Your task to perform on an android device: Open network settings Image 0: 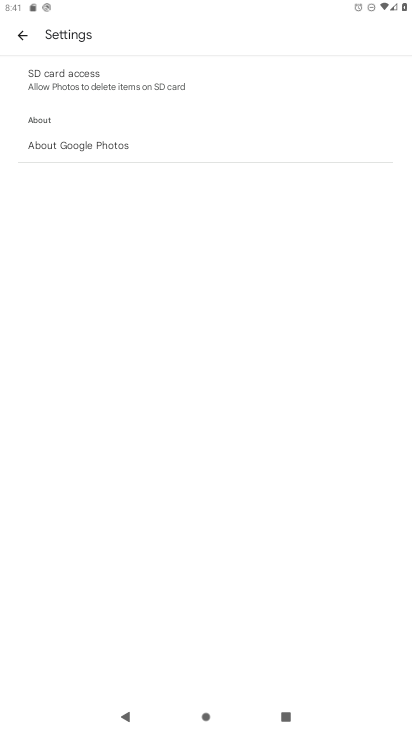
Step 0: press home button
Your task to perform on an android device: Open network settings Image 1: 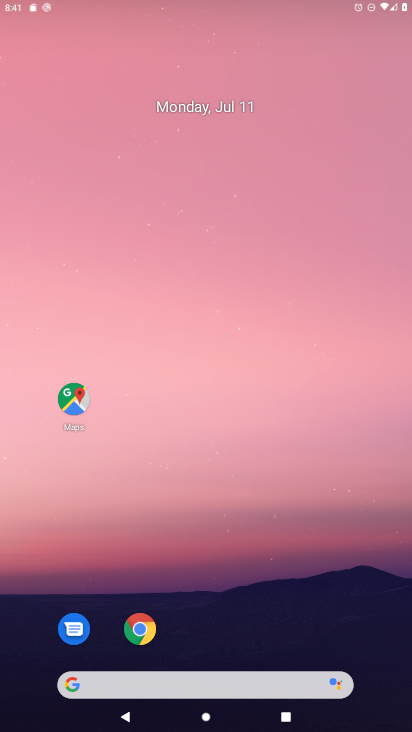
Step 1: drag from (198, 625) to (178, 92)
Your task to perform on an android device: Open network settings Image 2: 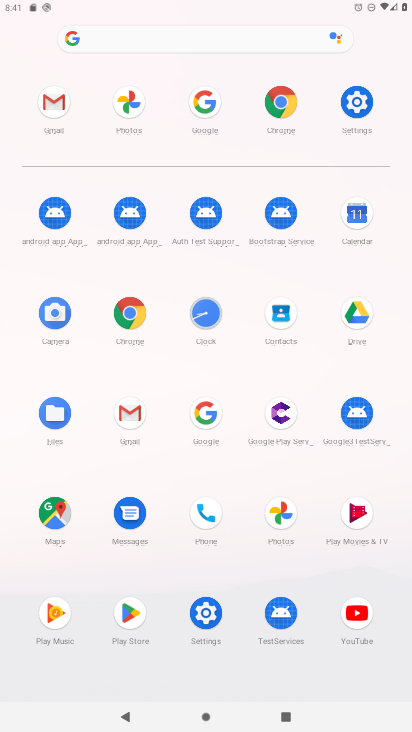
Step 2: click (359, 100)
Your task to perform on an android device: Open network settings Image 3: 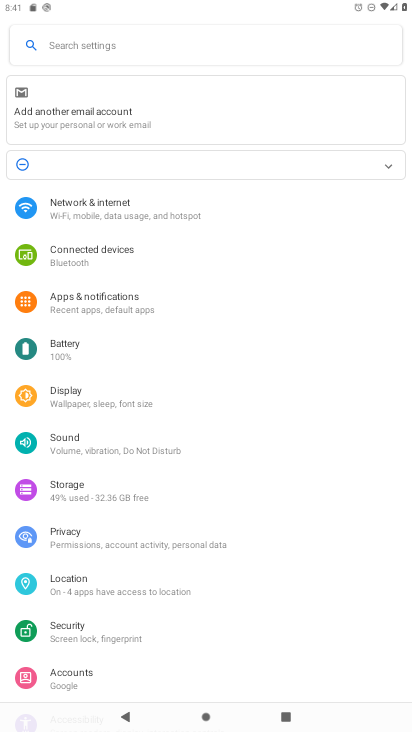
Step 3: click (115, 212)
Your task to perform on an android device: Open network settings Image 4: 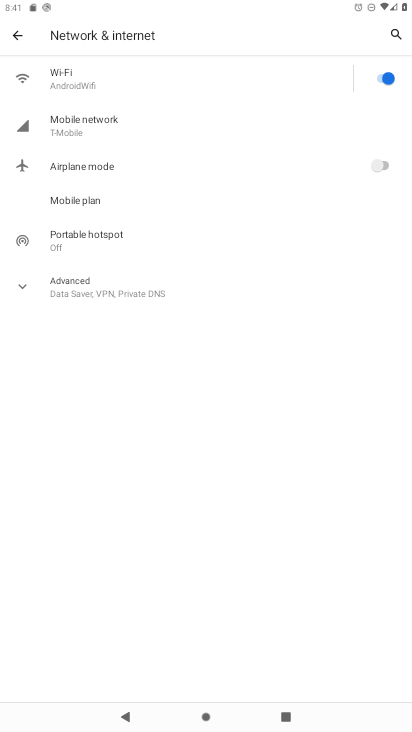
Step 4: click (140, 127)
Your task to perform on an android device: Open network settings Image 5: 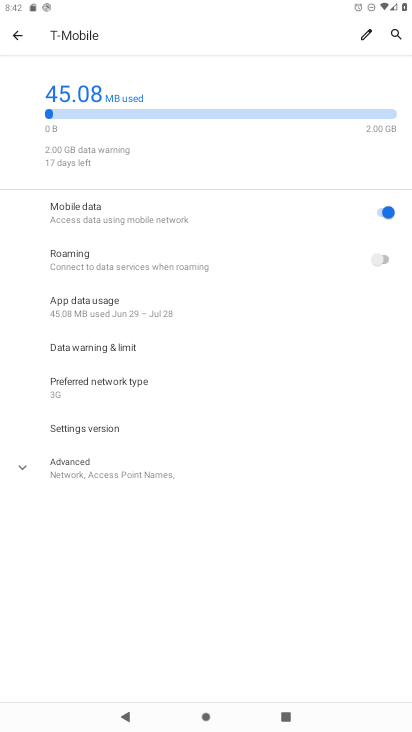
Step 5: task complete